Your task to perform on an android device: Open accessibility settings Image 0: 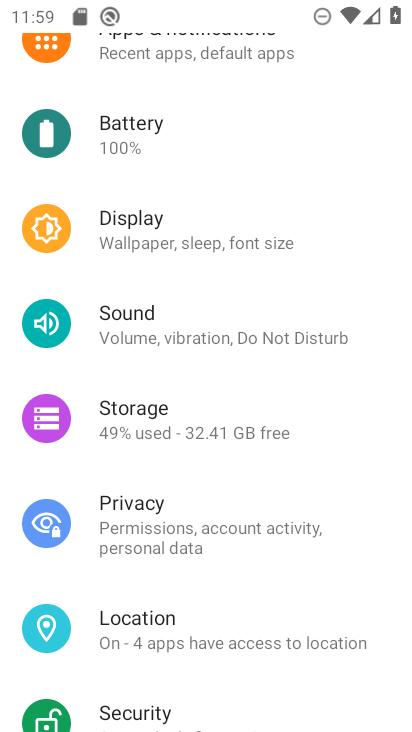
Step 0: press home button
Your task to perform on an android device: Open accessibility settings Image 1: 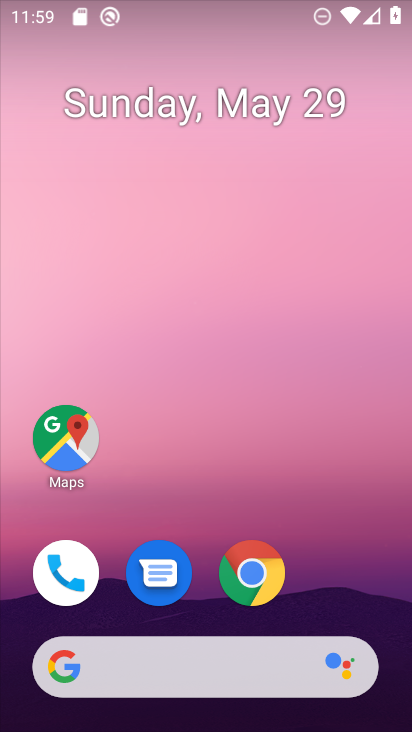
Step 1: drag from (344, 567) to (323, 162)
Your task to perform on an android device: Open accessibility settings Image 2: 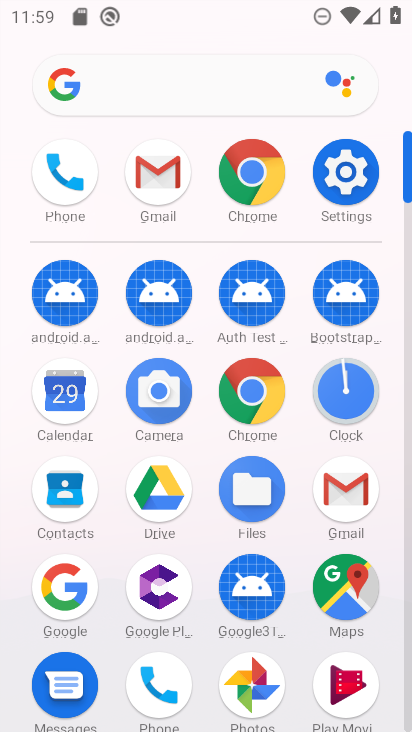
Step 2: click (345, 178)
Your task to perform on an android device: Open accessibility settings Image 3: 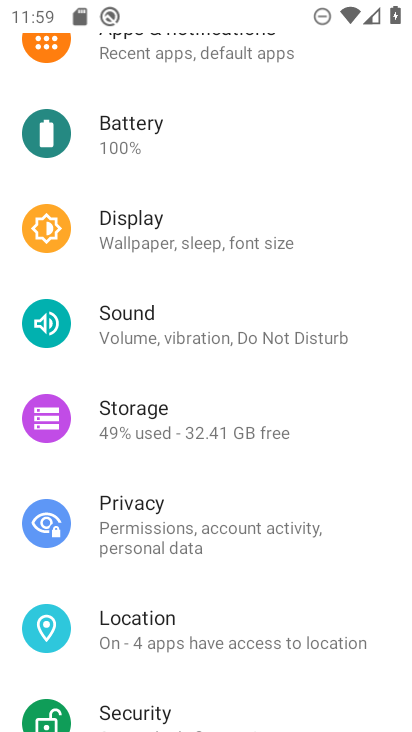
Step 3: drag from (299, 686) to (264, 313)
Your task to perform on an android device: Open accessibility settings Image 4: 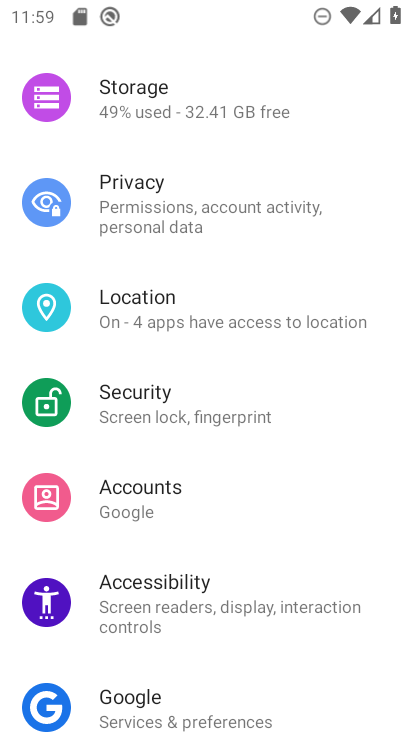
Step 4: click (197, 592)
Your task to perform on an android device: Open accessibility settings Image 5: 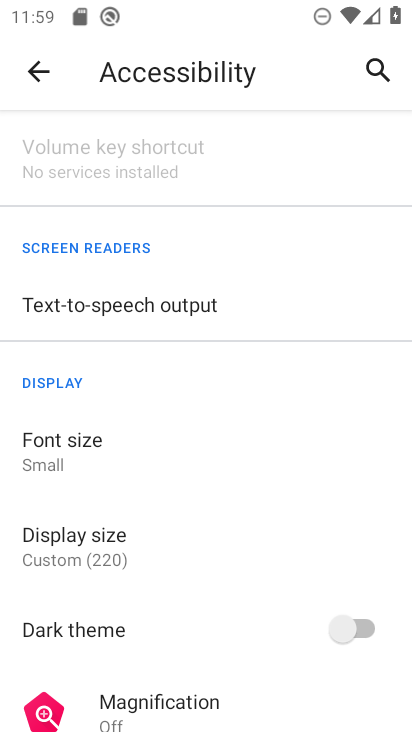
Step 5: task complete